Your task to perform on an android device: allow cookies in the chrome app Image 0: 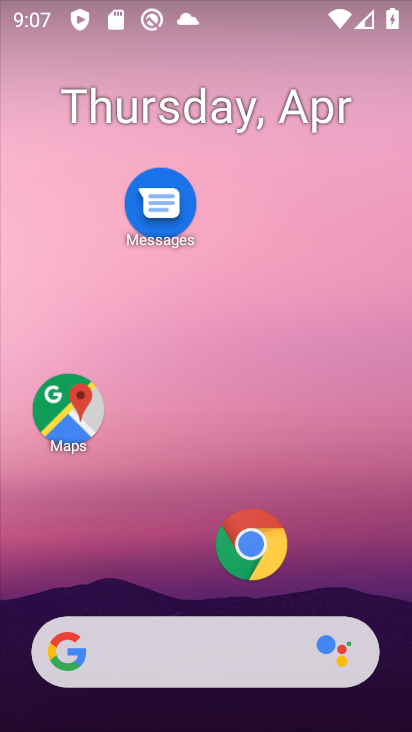
Step 0: click (242, 543)
Your task to perform on an android device: allow cookies in the chrome app Image 1: 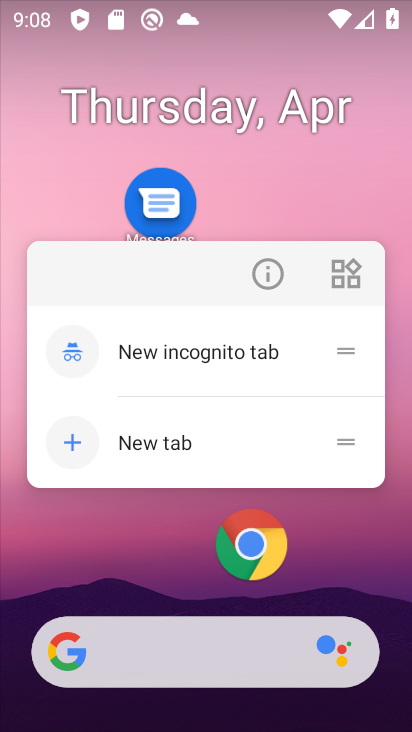
Step 1: click (242, 543)
Your task to perform on an android device: allow cookies in the chrome app Image 2: 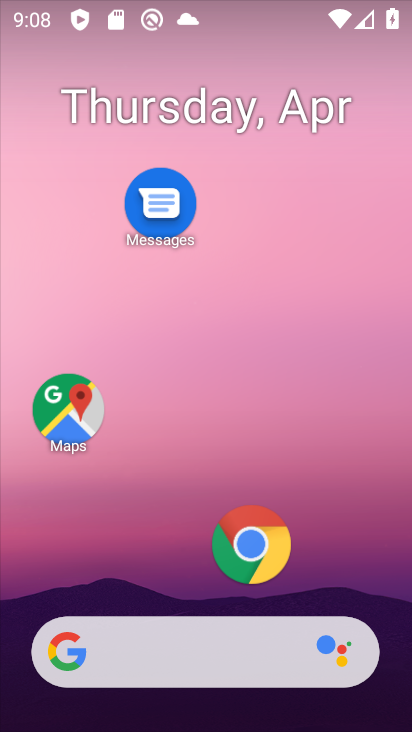
Step 2: click (259, 553)
Your task to perform on an android device: allow cookies in the chrome app Image 3: 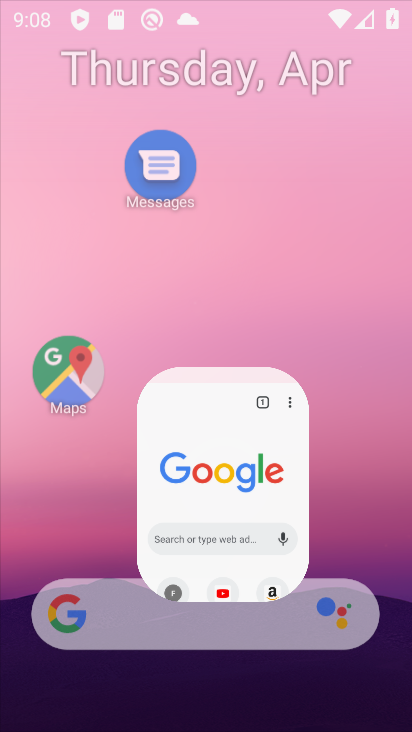
Step 3: click (259, 553)
Your task to perform on an android device: allow cookies in the chrome app Image 4: 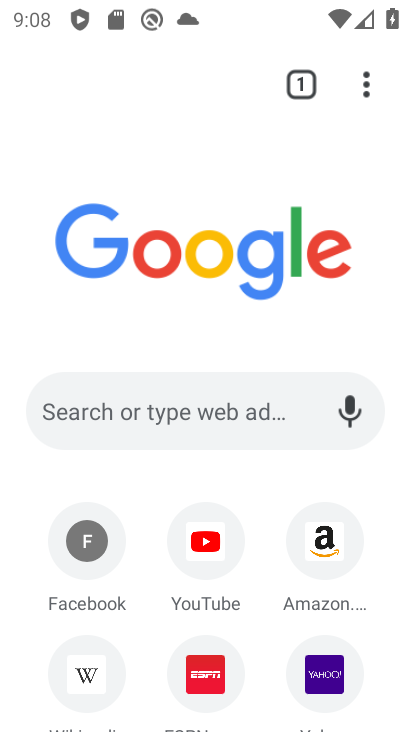
Step 4: click (363, 84)
Your task to perform on an android device: allow cookies in the chrome app Image 5: 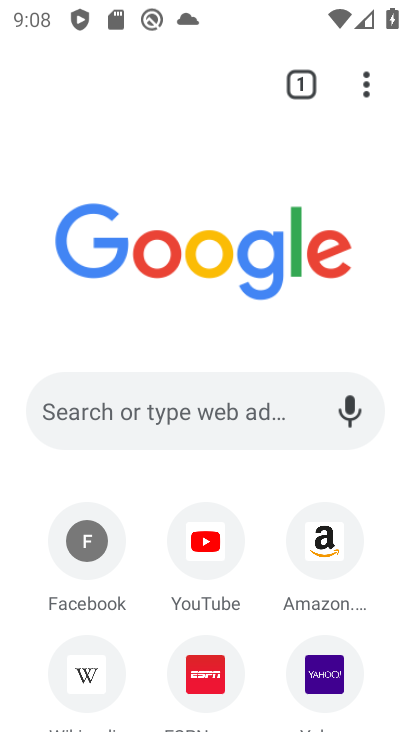
Step 5: click (363, 84)
Your task to perform on an android device: allow cookies in the chrome app Image 6: 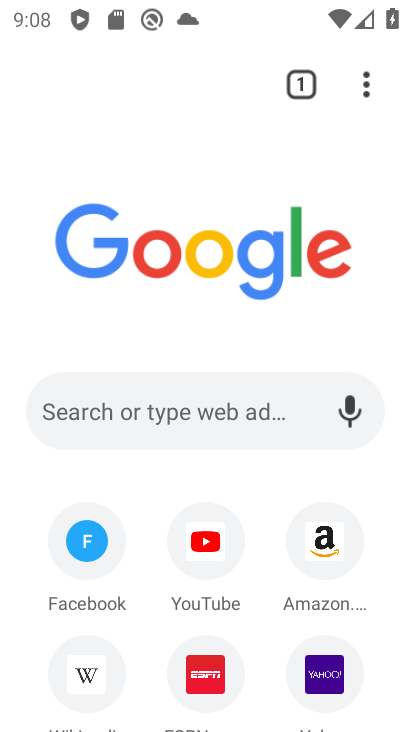
Step 6: click (368, 86)
Your task to perform on an android device: allow cookies in the chrome app Image 7: 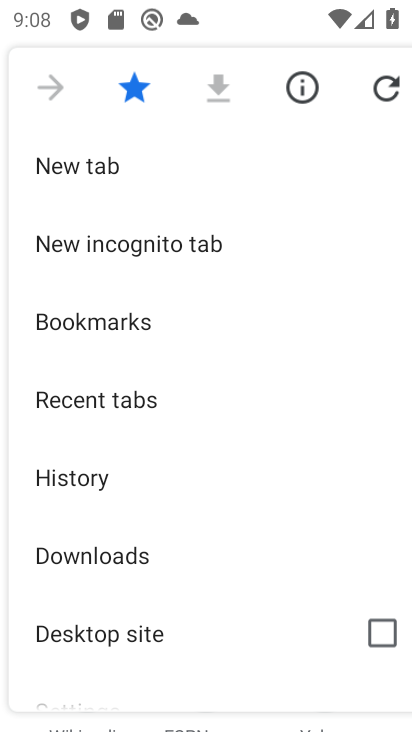
Step 7: drag from (158, 644) to (165, 313)
Your task to perform on an android device: allow cookies in the chrome app Image 8: 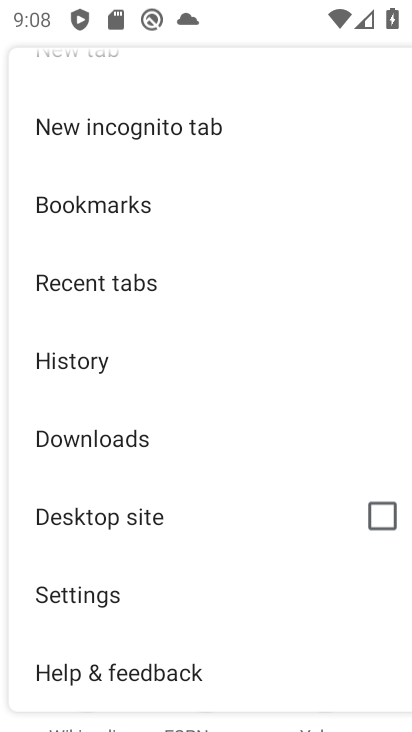
Step 8: click (76, 588)
Your task to perform on an android device: allow cookies in the chrome app Image 9: 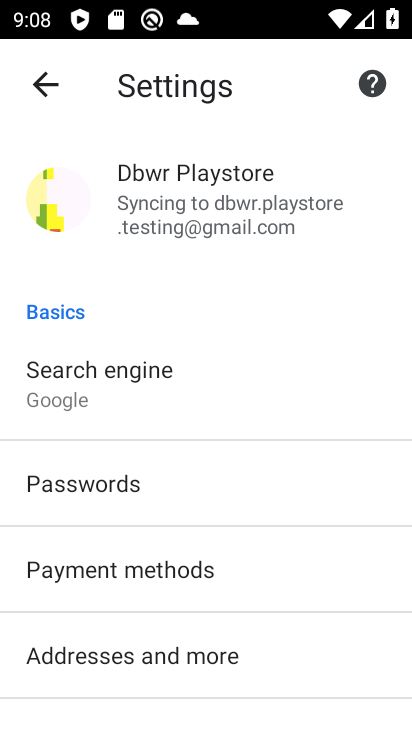
Step 9: drag from (92, 694) to (135, 293)
Your task to perform on an android device: allow cookies in the chrome app Image 10: 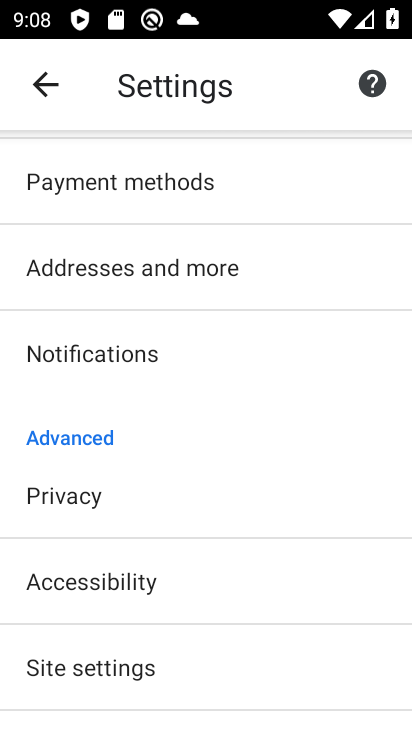
Step 10: click (82, 664)
Your task to perform on an android device: allow cookies in the chrome app Image 11: 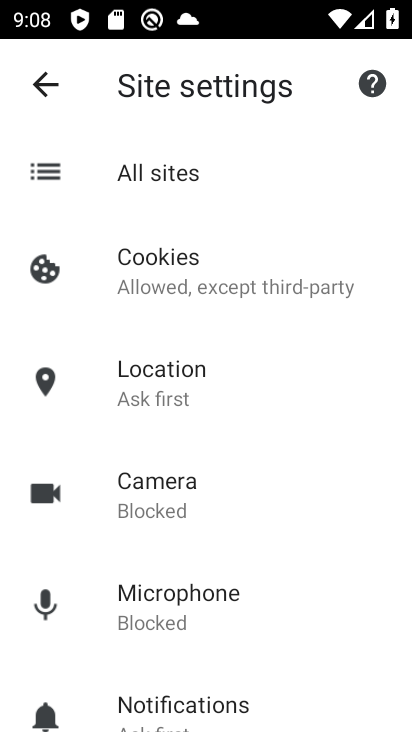
Step 11: click (191, 285)
Your task to perform on an android device: allow cookies in the chrome app Image 12: 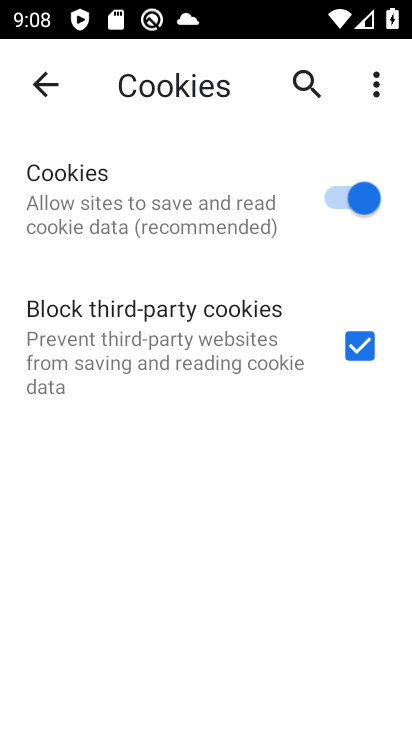
Step 12: task complete